Your task to perform on an android device: clear all cookies in the chrome app Image 0: 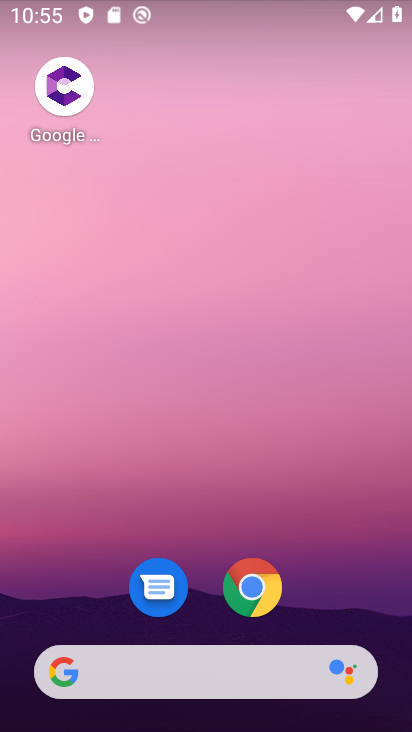
Step 0: drag from (280, 563) to (216, 191)
Your task to perform on an android device: clear all cookies in the chrome app Image 1: 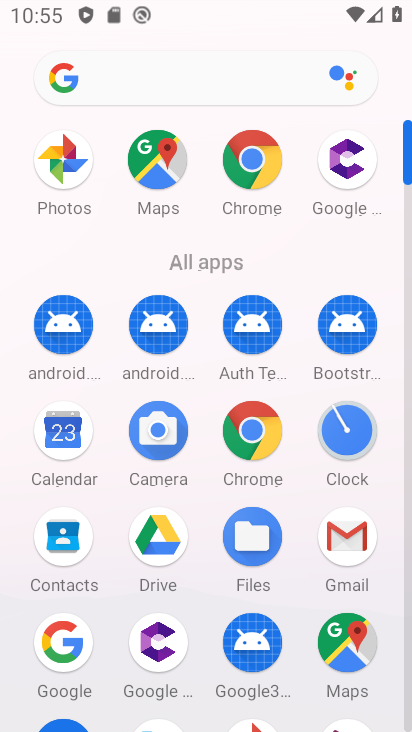
Step 1: drag from (239, 176) to (191, 358)
Your task to perform on an android device: clear all cookies in the chrome app Image 2: 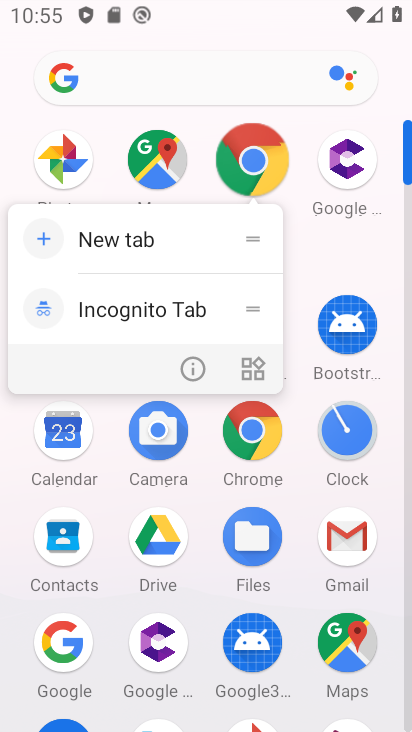
Step 2: click (188, 363)
Your task to perform on an android device: clear all cookies in the chrome app Image 3: 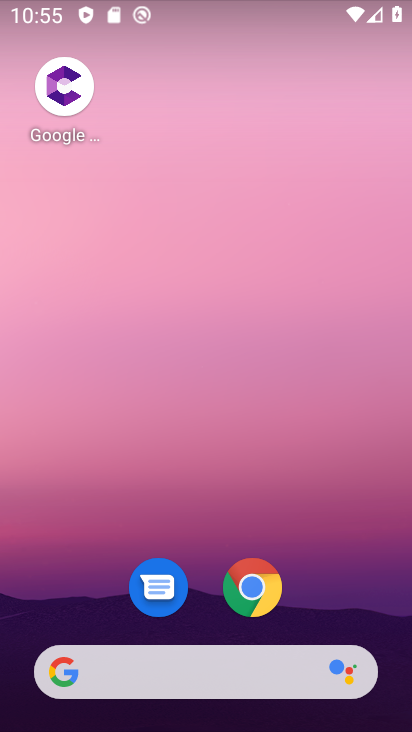
Step 3: drag from (250, 674) to (171, 109)
Your task to perform on an android device: clear all cookies in the chrome app Image 4: 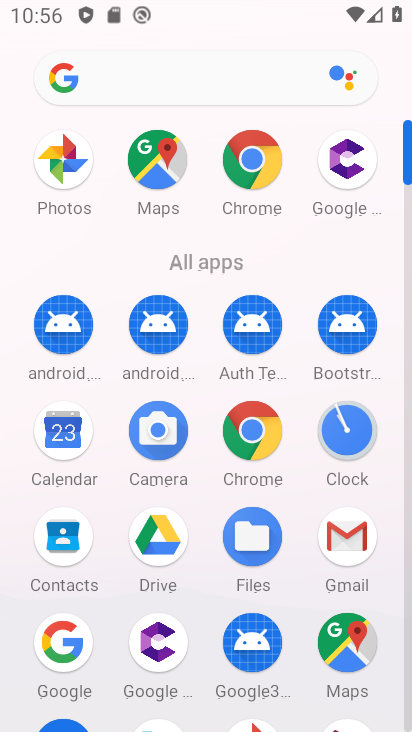
Step 4: click (247, 167)
Your task to perform on an android device: clear all cookies in the chrome app Image 5: 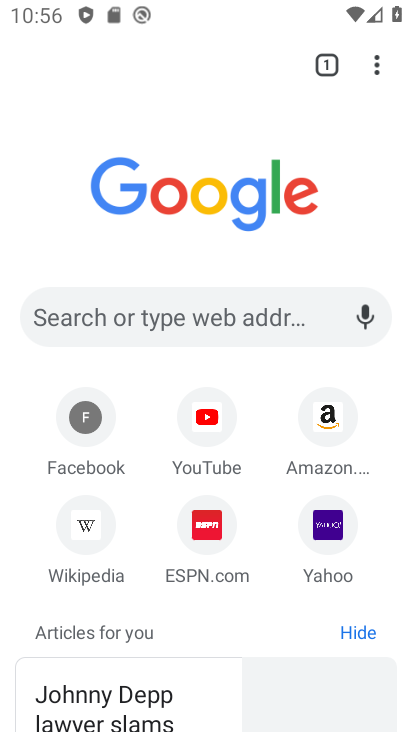
Step 5: drag from (373, 65) to (157, 572)
Your task to perform on an android device: clear all cookies in the chrome app Image 6: 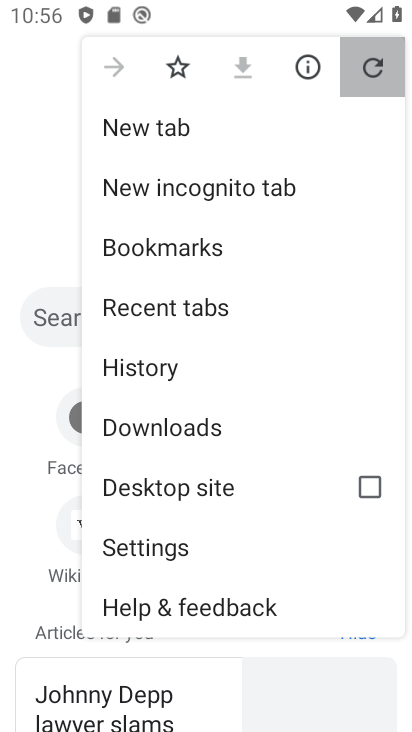
Step 6: click (141, 553)
Your task to perform on an android device: clear all cookies in the chrome app Image 7: 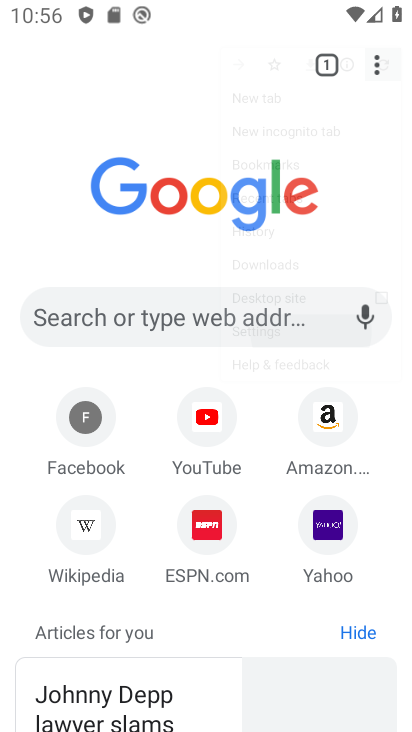
Step 7: click (141, 552)
Your task to perform on an android device: clear all cookies in the chrome app Image 8: 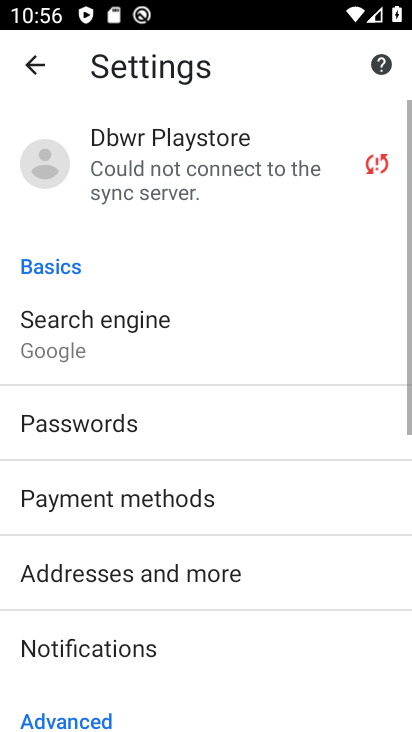
Step 8: drag from (121, 549) to (123, 149)
Your task to perform on an android device: clear all cookies in the chrome app Image 9: 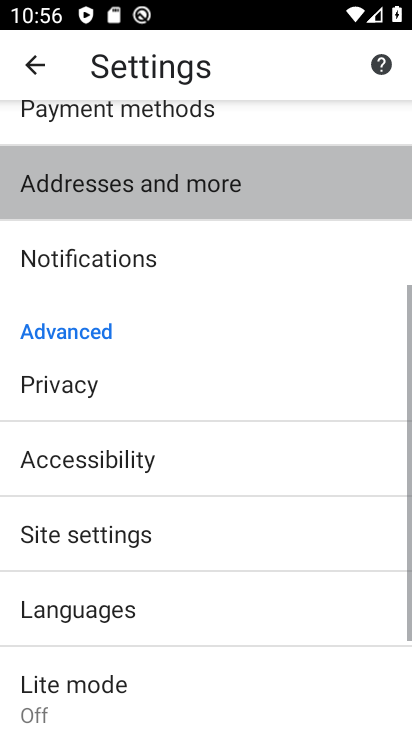
Step 9: drag from (131, 476) to (131, 220)
Your task to perform on an android device: clear all cookies in the chrome app Image 10: 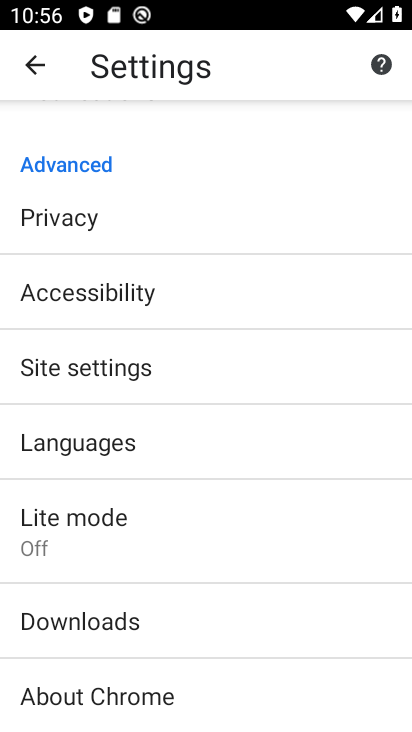
Step 10: click (72, 354)
Your task to perform on an android device: clear all cookies in the chrome app Image 11: 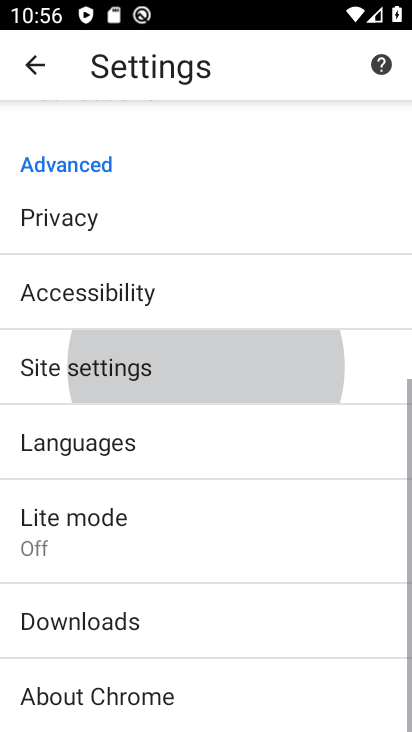
Step 11: click (72, 354)
Your task to perform on an android device: clear all cookies in the chrome app Image 12: 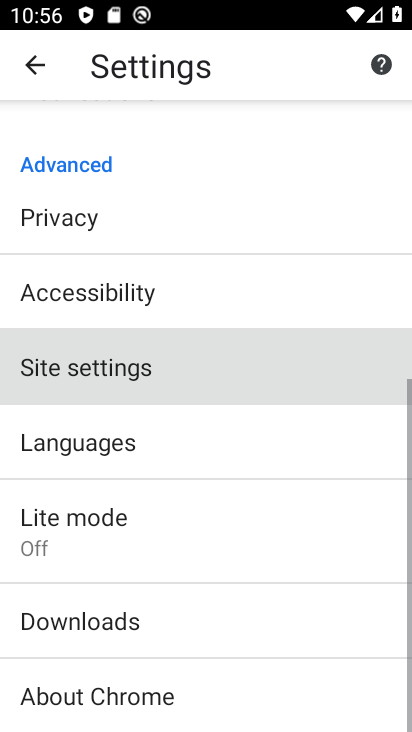
Step 12: click (72, 354)
Your task to perform on an android device: clear all cookies in the chrome app Image 13: 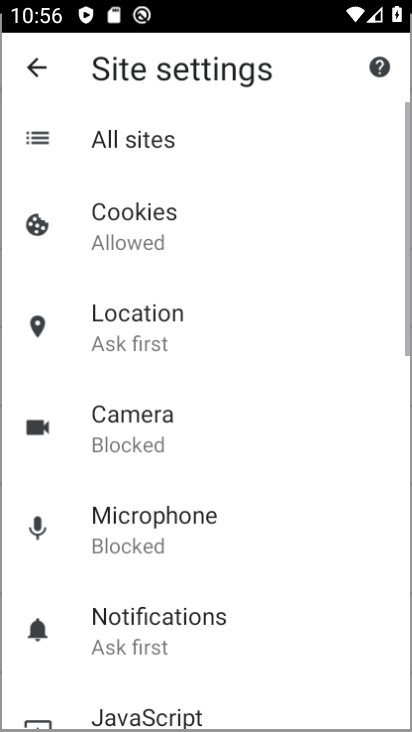
Step 13: click (71, 357)
Your task to perform on an android device: clear all cookies in the chrome app Image 14: 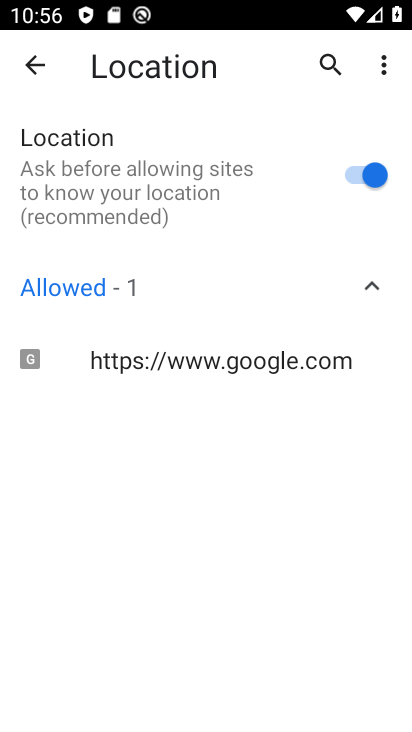
Step 14: click (19, 57)
Your task to perform on an android device: clear all cookies in the chrome app Image 15: 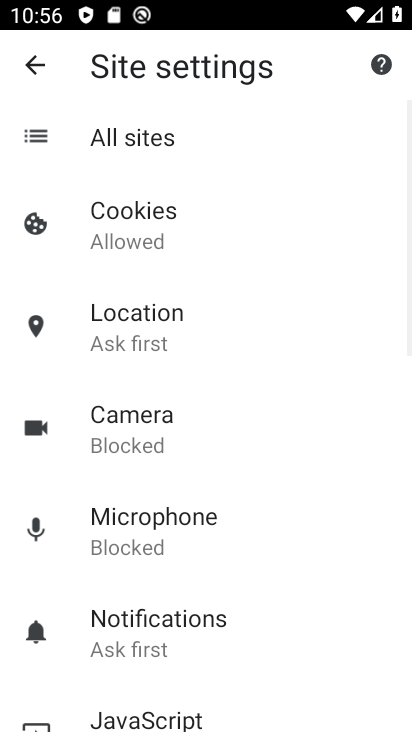
Step 15: click (117, 214)
Your task to perform on an android device: clear all cookies in the chrome app Image 16: 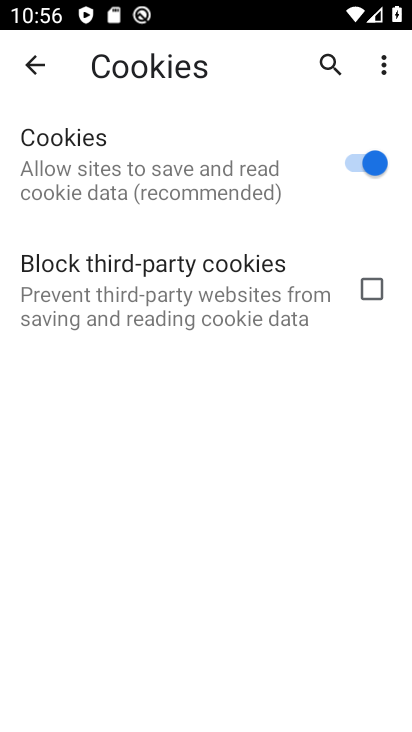
Step 16: task complete